Your task to perform on an android device: Is it going to rain today? Image 0: 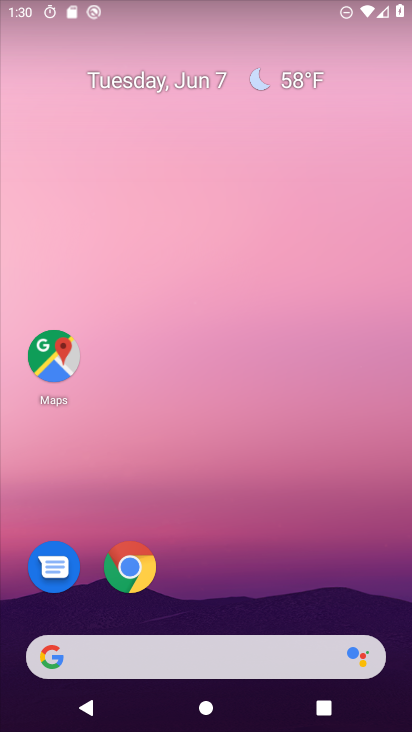
Step 0: click (292, 73)
Your task to perform on an android device: Is it going to rain today? Image 1: 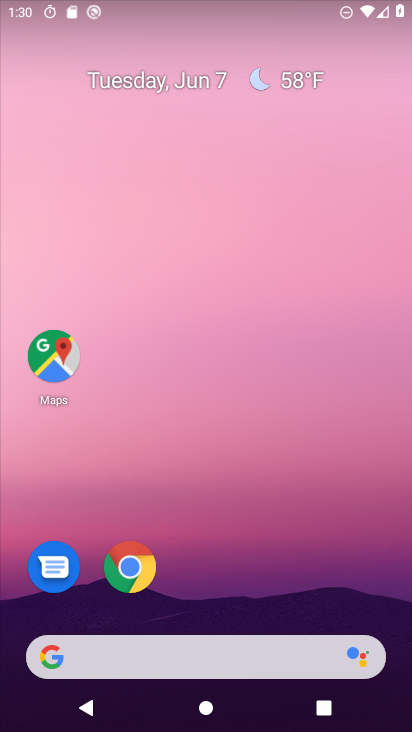
Step 1: click (302, 78)
Your task to perform on an android device: Is it going to rain today? Image 2: 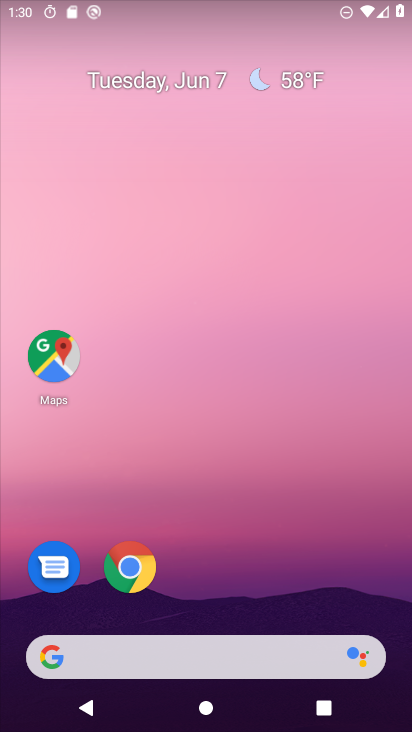
Step 2: click (302, 77)
Your task to perform on an android device: Is it going to rain today? Image 3: 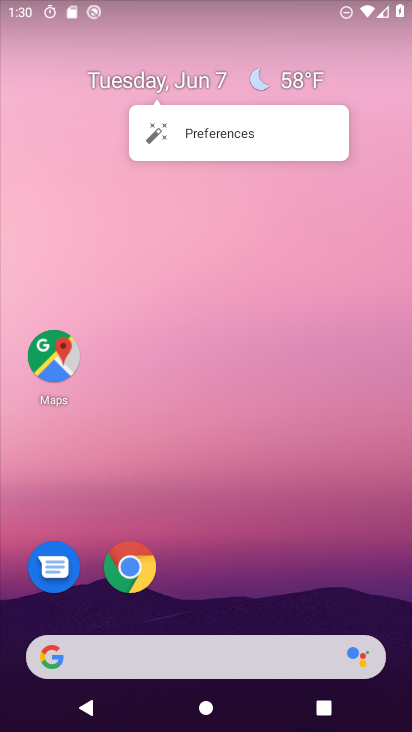
Step 3: drag from (1, 253) to (391, 307)
Your task to perform on an android device: Is it going to rain today? Image 4: 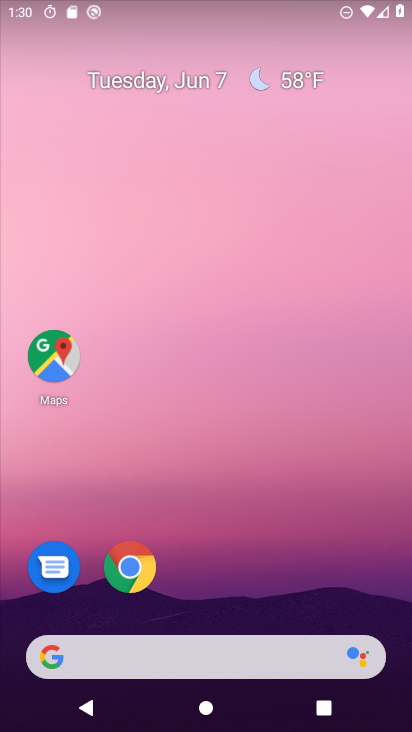
Step 4: drag from (2, 267) to (384, 274)
Your task to perform on an android device: Is it going to rain today? Image 5: 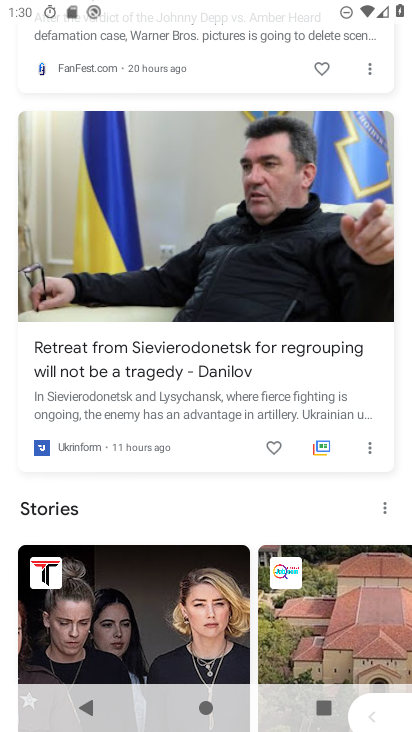
Step 5: drag from (295, 124) to (360, 500)
Your task to perform on an android device: Is it going to rain today? Image 6: 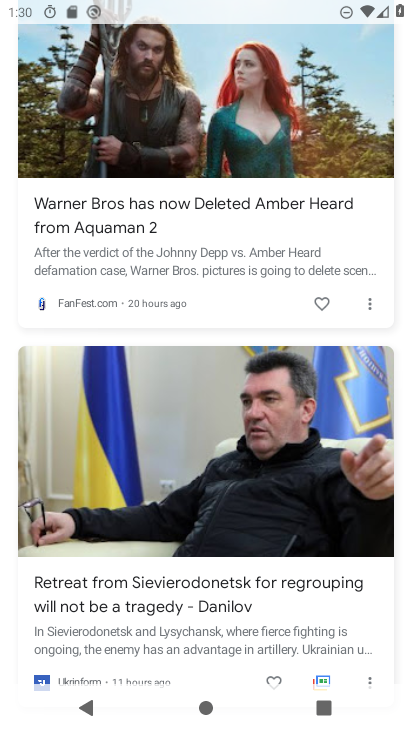
Step 6: drag from (316, 145) to (352, 663)
Your task to perform on an android device: Is it going to rain today? Image 7: 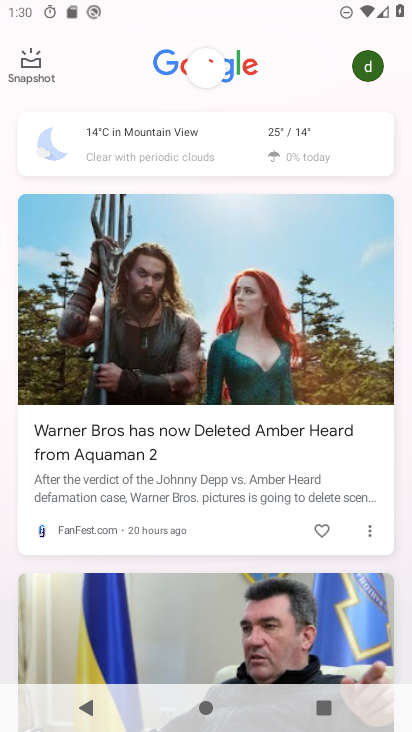
Step 7: click (289, 124)
Your task to perform on an android device: Is it going to rain today? Image 8: 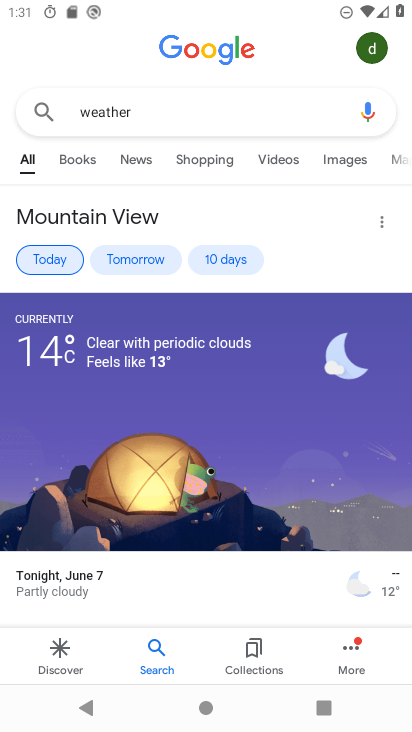
Step 8: task complete